Your task to perform on an android device: What is the recent news? Image 0: 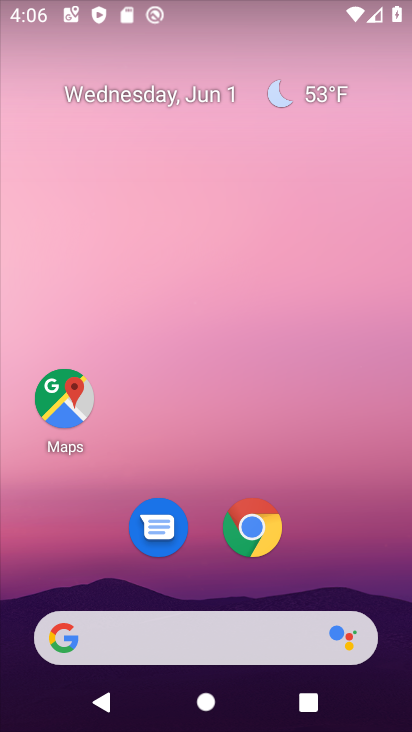
Step 0: drag from (331, 580) to (336, 76)
Your task to perform on an android device: What is the recent news? Image 1: 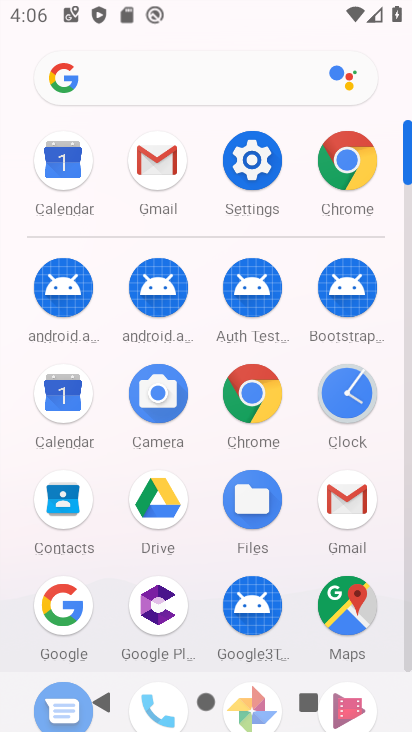
Step 1: click (248, 393)
Your task to perform on an android device: What is the recent news? Image 2: 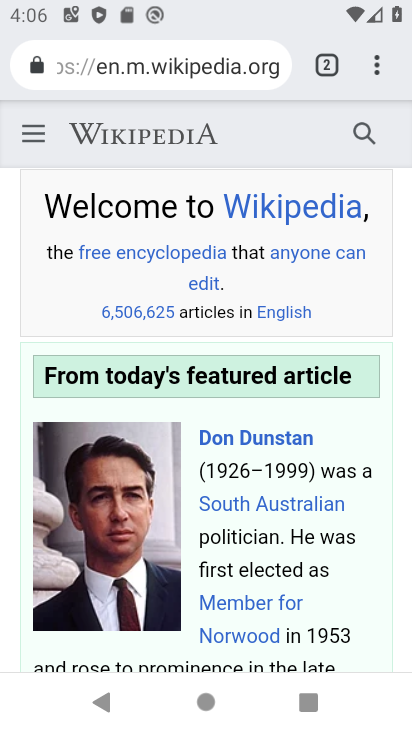
Step 2: click (268, 69)
Your task to perform on an android device: What is the recent news? Image 3: 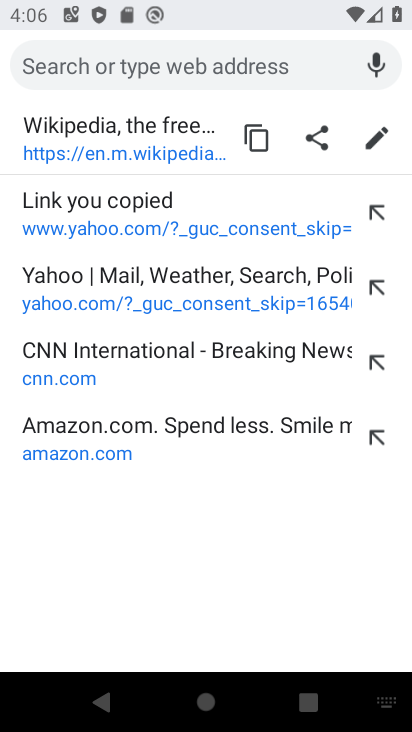
Step 3: type "What is the recent news?"
Your task to perform on an android device: What is the recent news? Image 4: 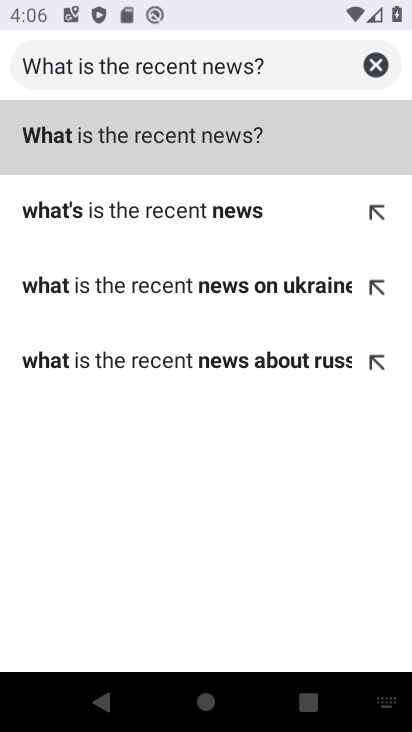
Step 4: click (189, 139)
Your task to perform on an android device: What is the recent news? Image 5: 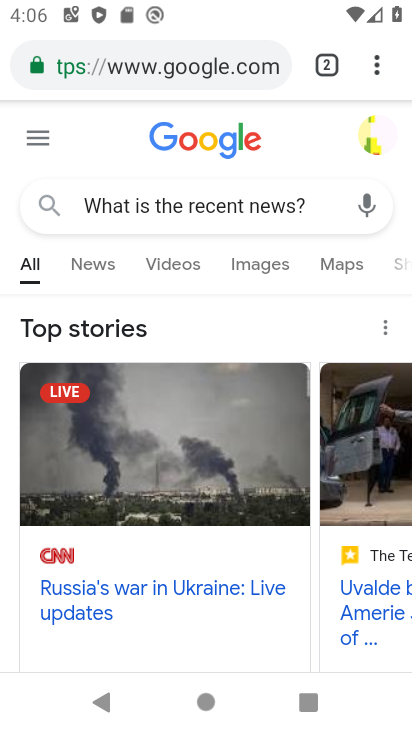
Step 5: click (81, 264)
Your task to perform on an android device: What is the recent news? Image 6: 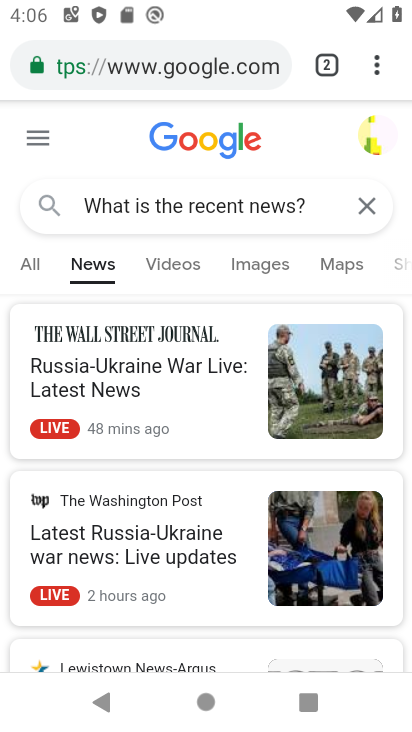
Step 6: task complete